Your task to perform on an android device: Clear the shopping cart on costco.com. Add "razer naga" to the cart on costco.com Image 0: 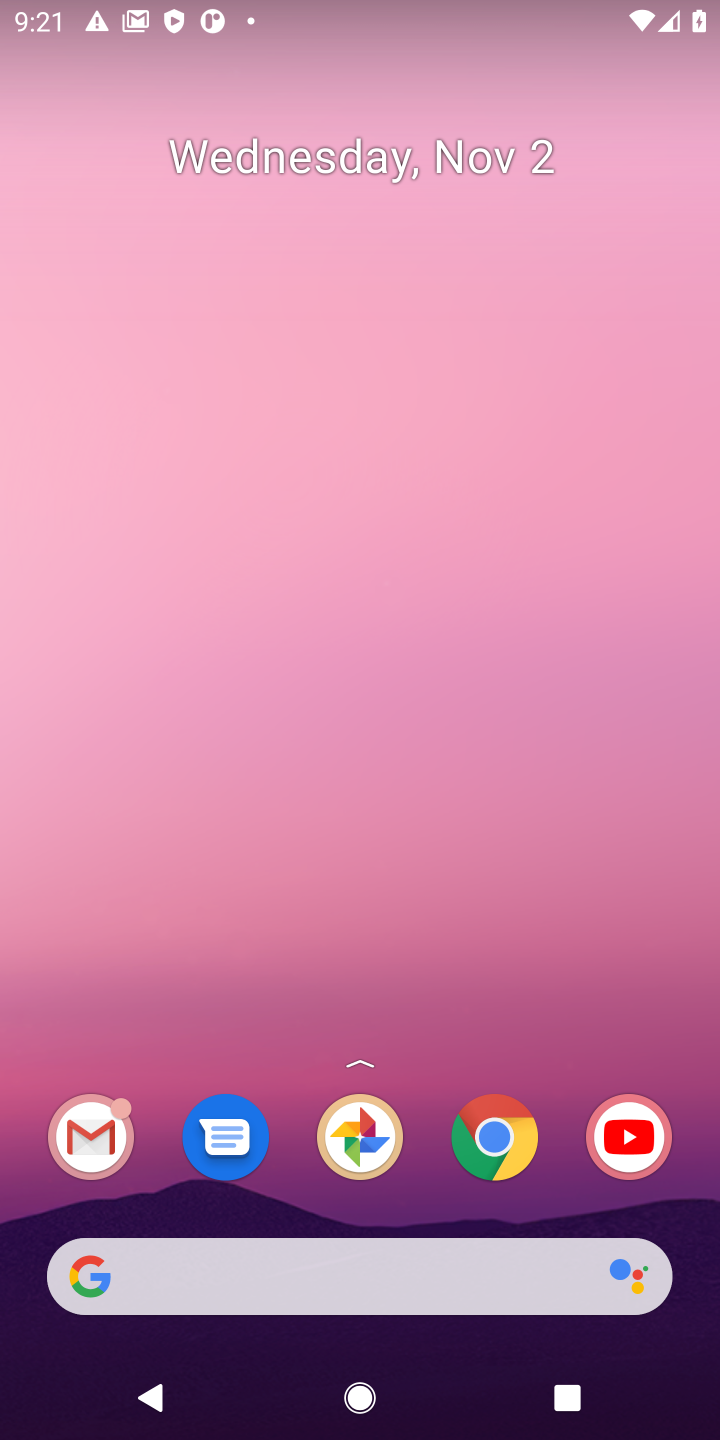
Step 0: click (494, 1140)
Your task to perform on an android device: Clear the shopping cart on costco.com. Add "razer naga" to the cart on costco.com Image 1: 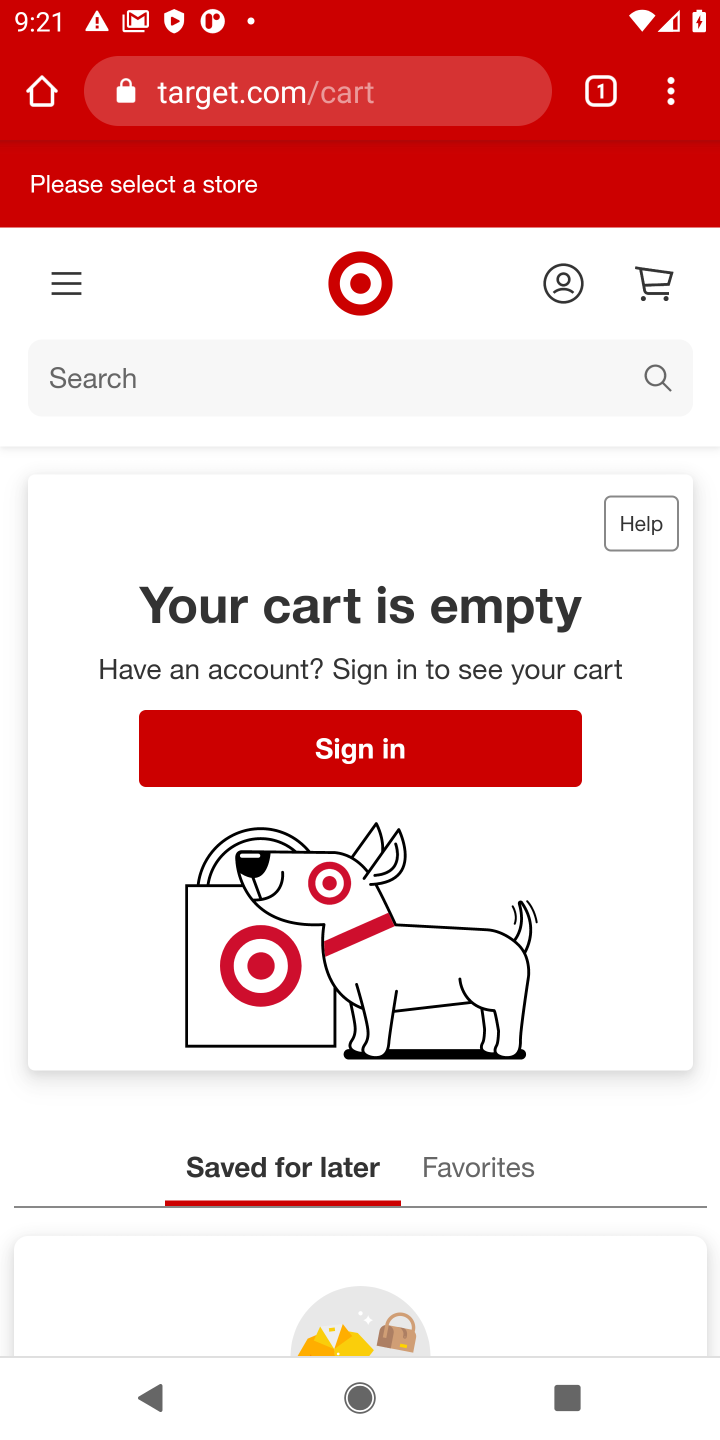
Step 1: click (453, 62)
Your task to perform on an android device: Clear the shopping cart on costco.com. Add "razer naga" to the cart on costco.com Image 2: 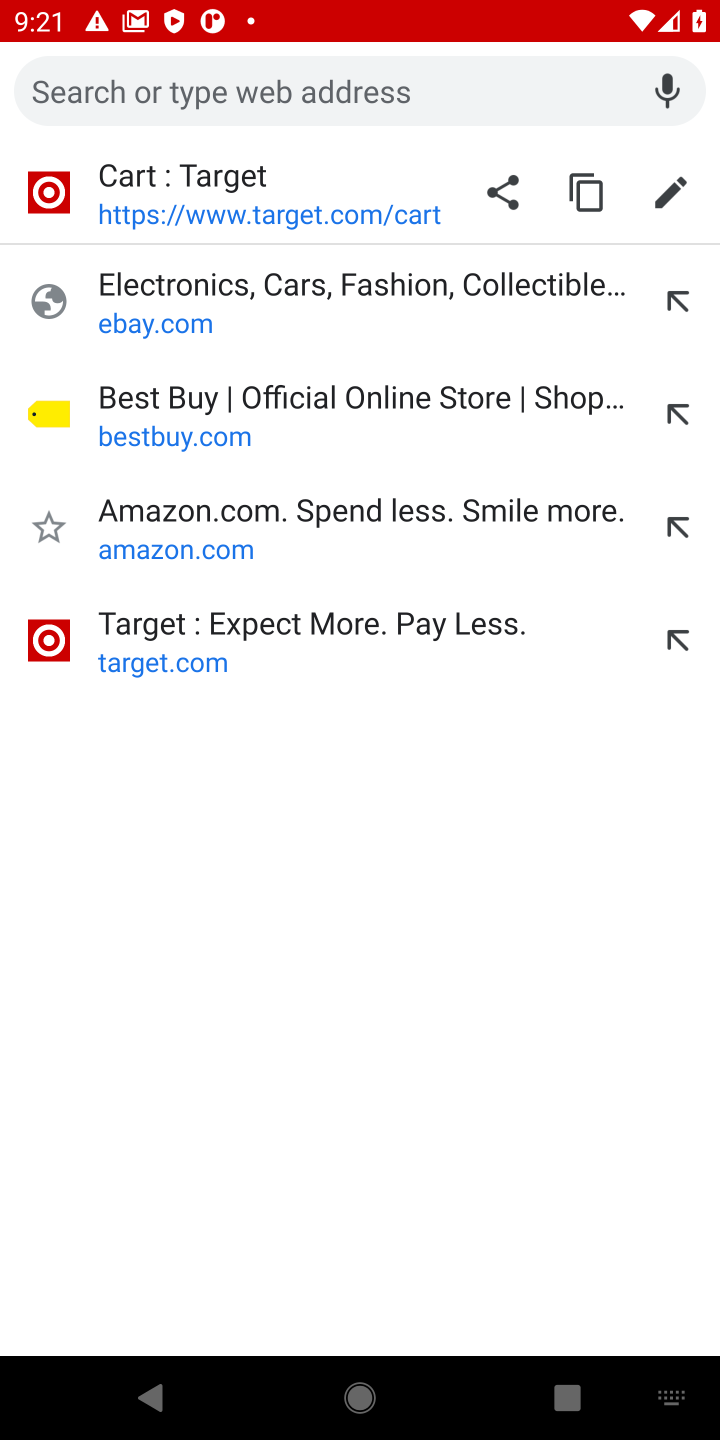
Step 2: type "costco"
Your task to perform on an android device: Clear the shopping cart on costco.com. Add "razer naga" to the cart on costco.com Image 3: 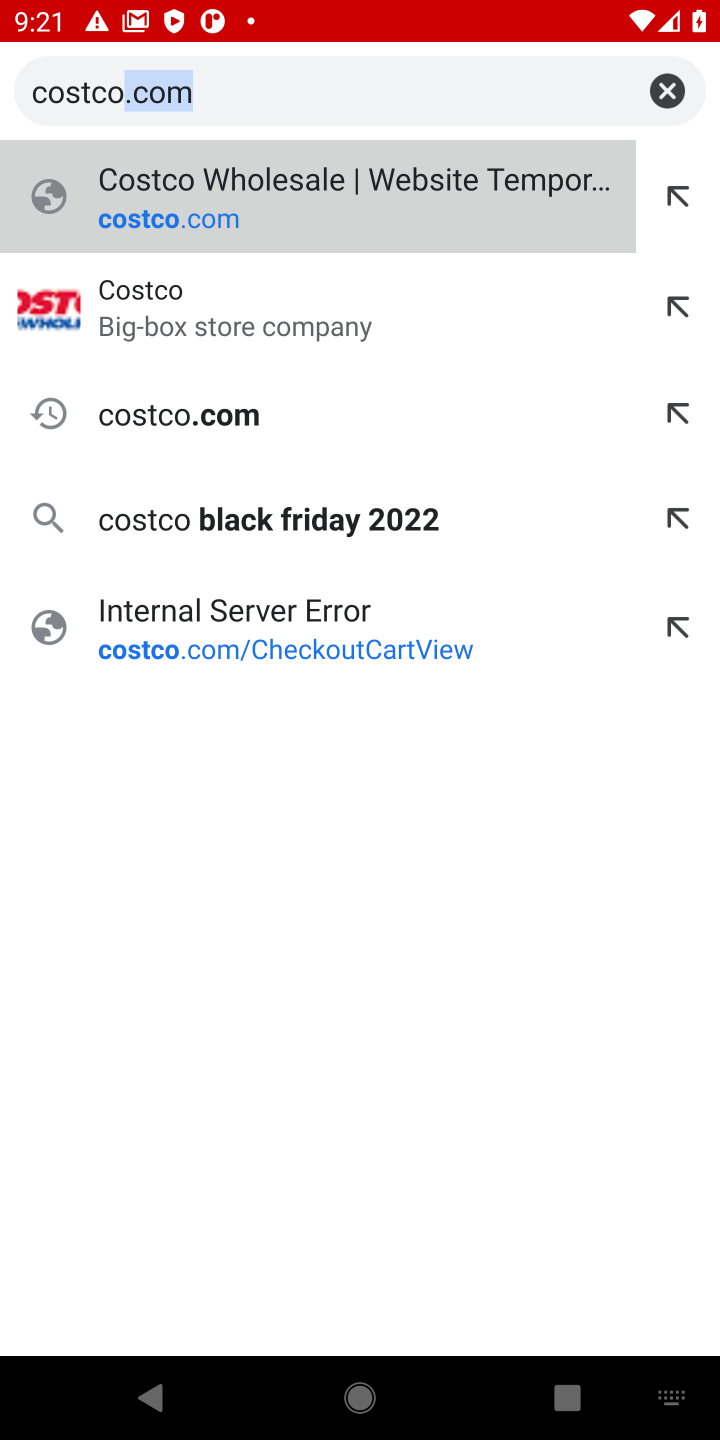
Step 3: click (166, 303)
Your task to perform on an android device: Clear the shopping cart on costco.com. Add "razer naga" to the cart on costco.com Image 4: 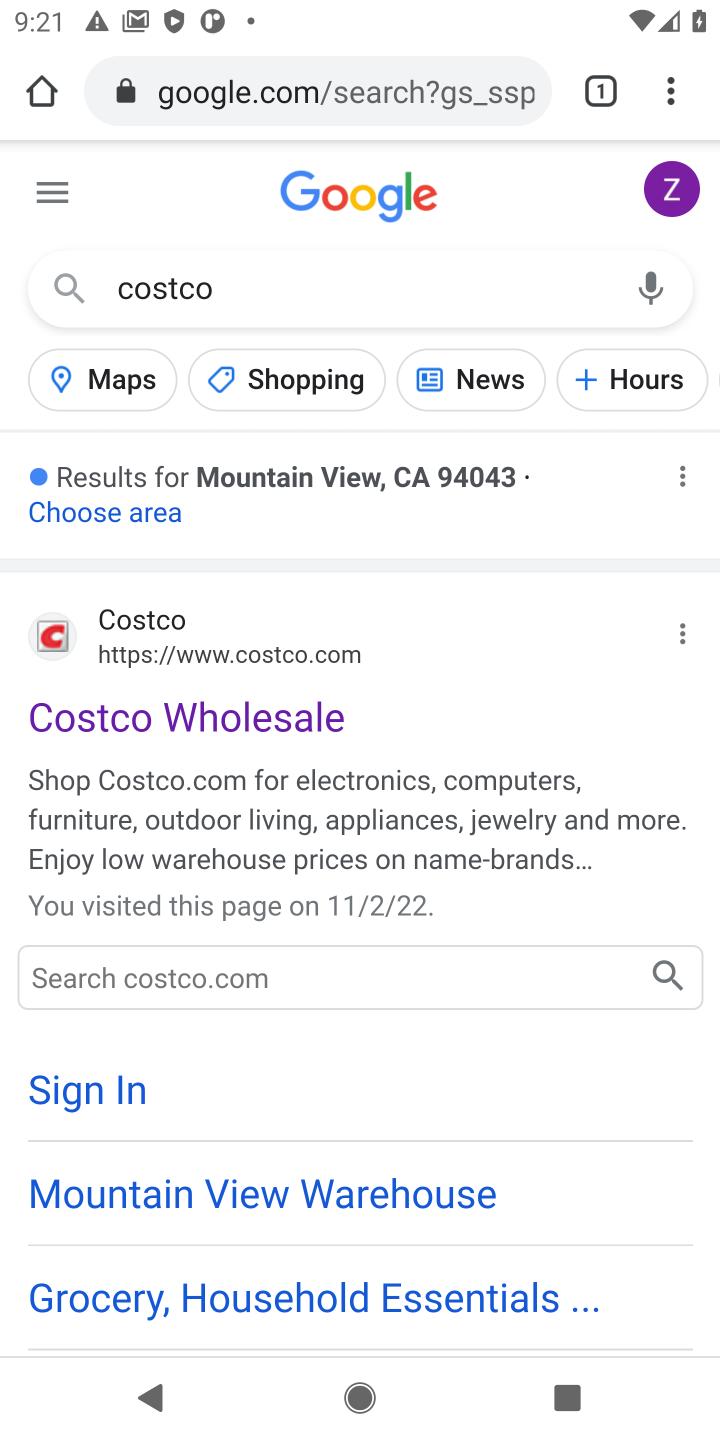
Step 4: click (218, 722)
Your task to perform on an android device: Clear the shopping cart on costco.com. Add "razer naga" to the cart on costco.com Image 5: 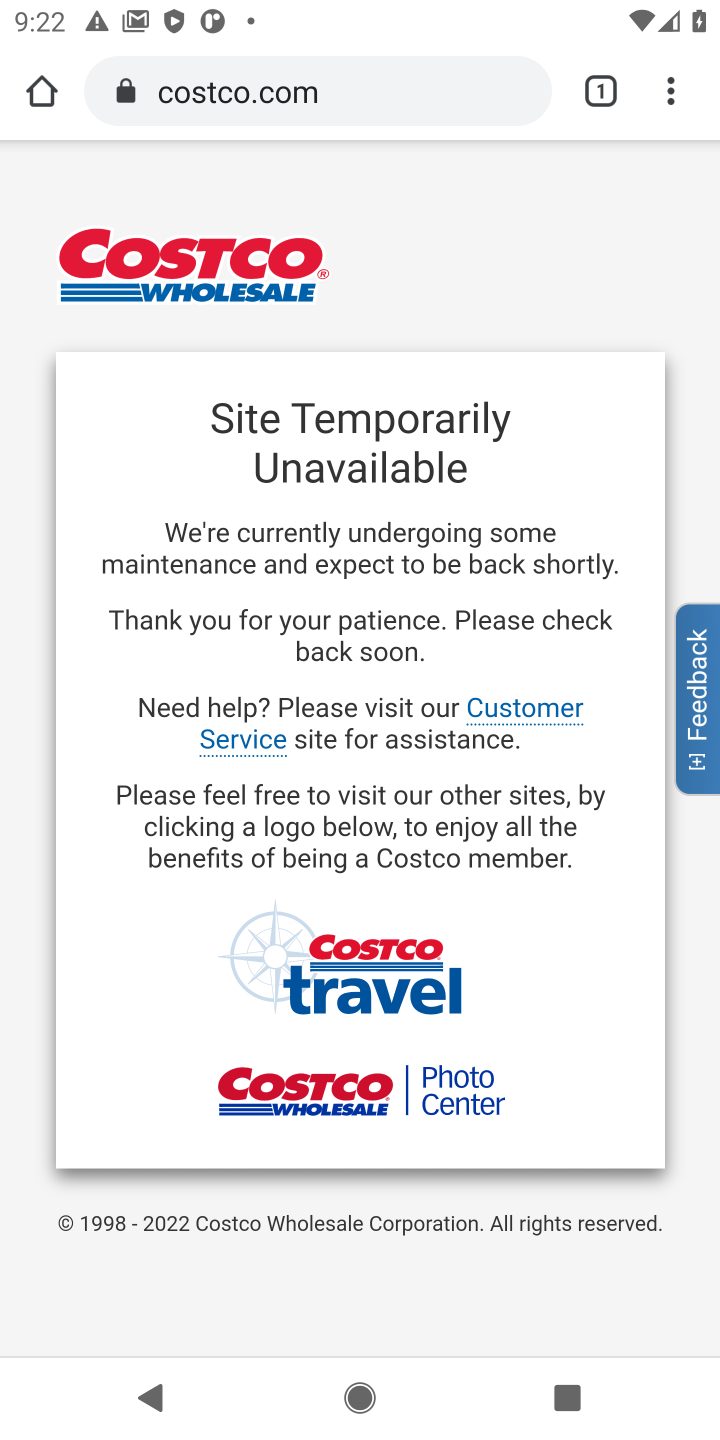
Step 5: task complete